Your task to perform on an android device: delete a single message in the gmail app Image 0: 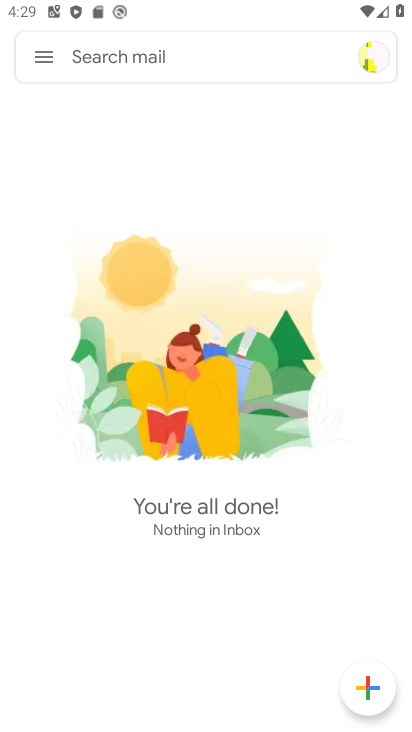
Step 0: press home button
Your task to perform on an android device: delete a single message in the gmail app Image 1: 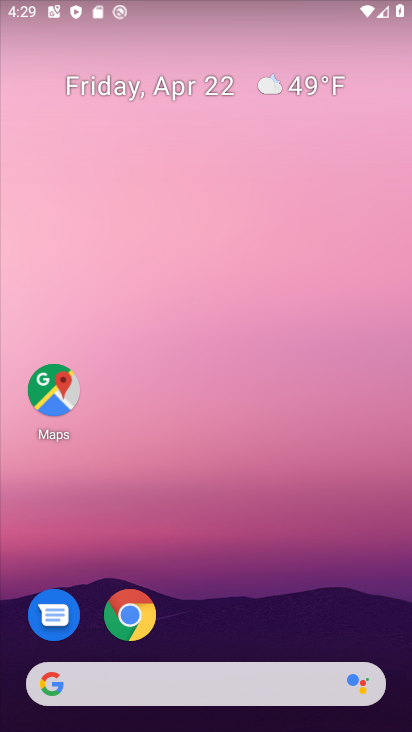
Step 1: drag from (202, 630) to (216, 187)
Your task to perform on an android device: delete a single message in the gmail app Image 2: 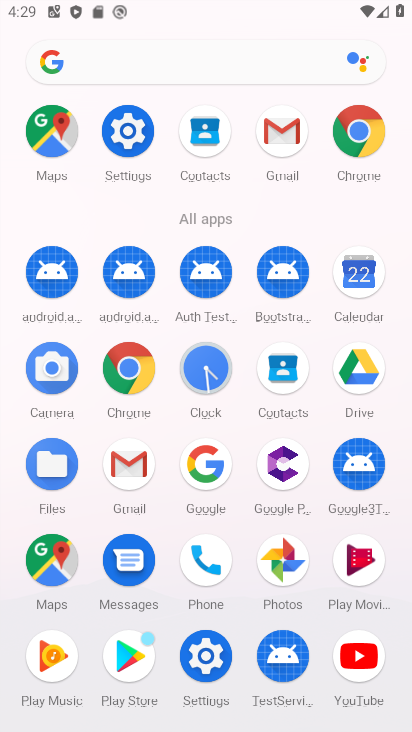
Step 2: click (275, 147)
Your task to perform on an android device: delete a single message in the gmail app Image 3: 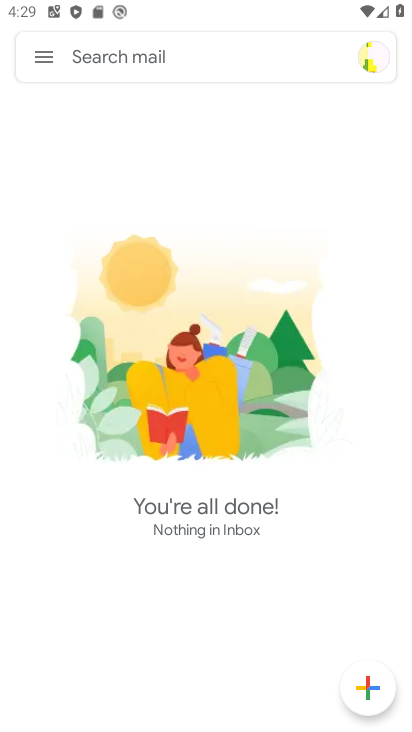
Step 3: click (44, 53)
Your task to perform on an android device: delete a single message in the gmail app Image 4: 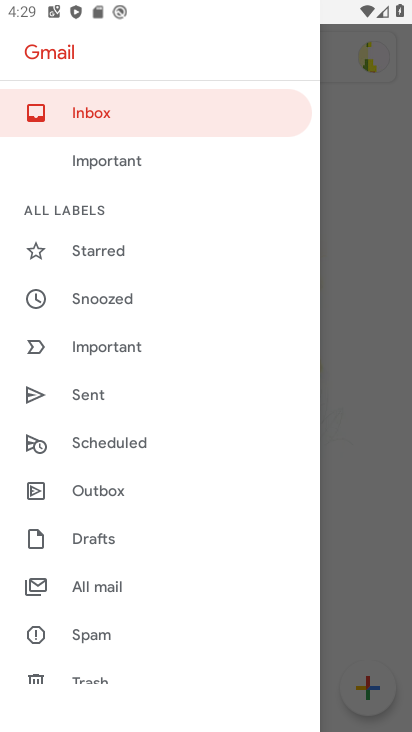
Step 4: click (108, 581)
Your task to perform on an android device: delete a single message in the gmail app Image 5: 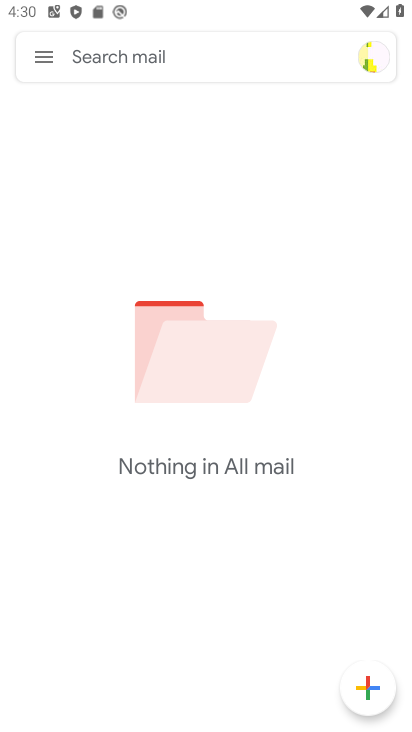
Step 5: task complete